Your task to perform on an android device: Open settings Image 0: 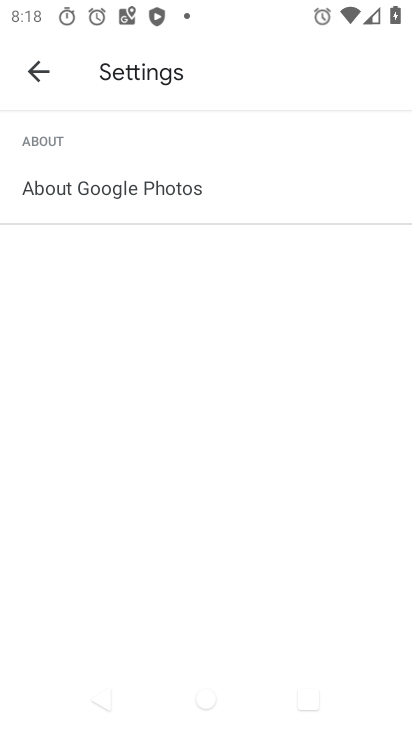
Step 0: press home button
Your task to perform on an android device: Open settings Image 1: 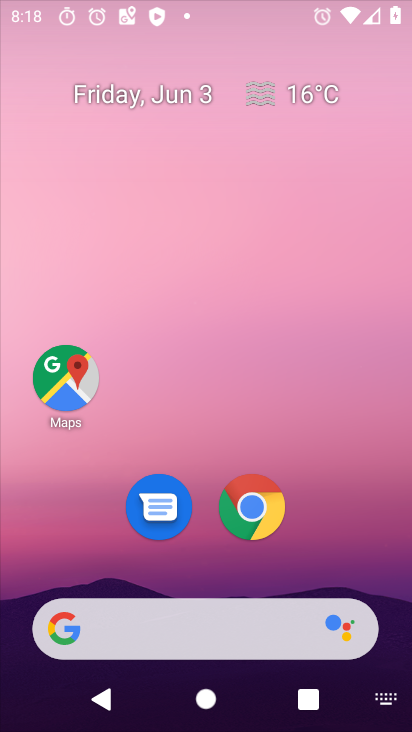
Step 1: drag from (298, 190) to (167, 24)
Your task to perform on an android device: Open settings Image 2: 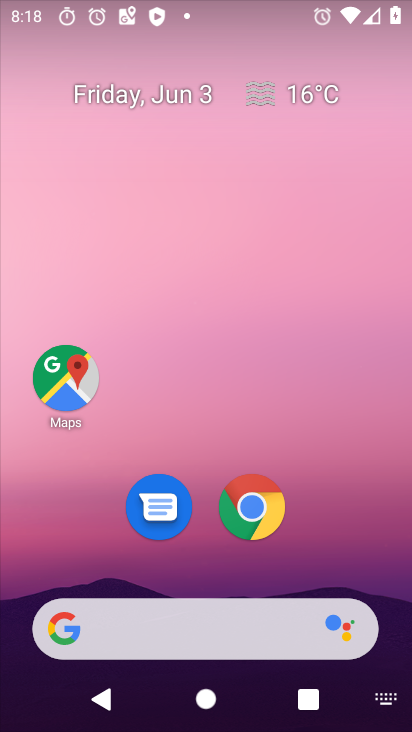
Step 2: drag from (346, 517) to (171, 0)
Your task to perform on an android device: Open settings Image 3: 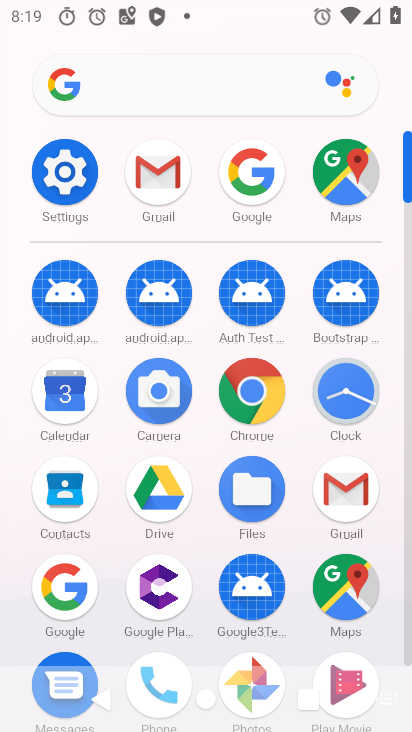
Step 3: click (61, 168)
Your task to perform on an android device: Open settings Image 4: 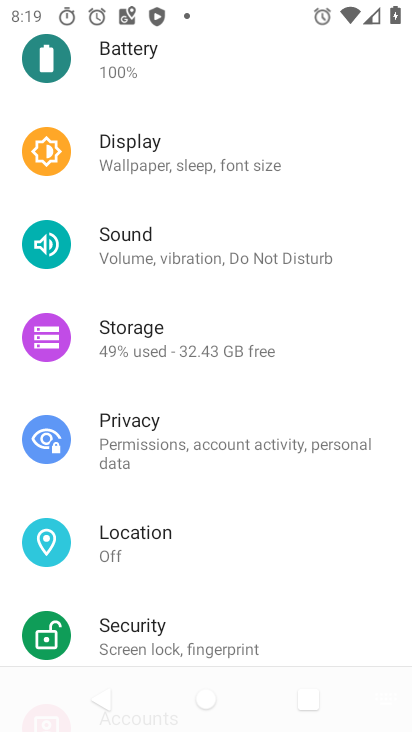
Step 4: task complete